Your task to perform on an android device: check android version Image 0: 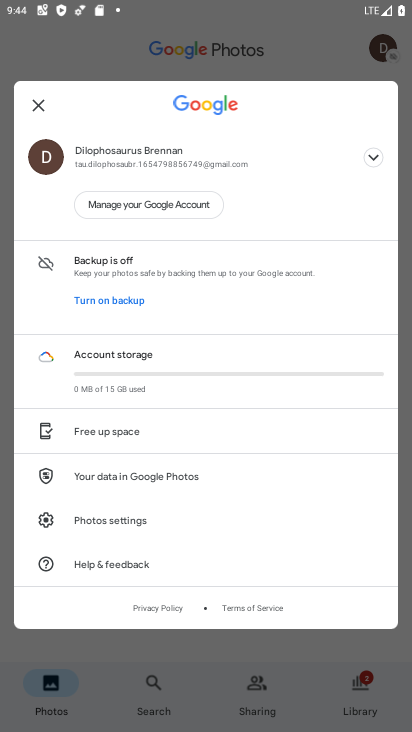
Step 0: click (271, 677)
Your task to perform on an android device: check android version Image 1: 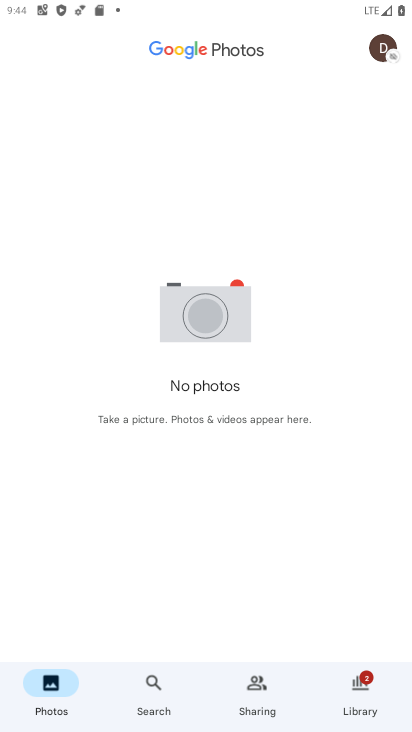
Step 1: press home button
Your task to perform on an android device: check android version Image 2: 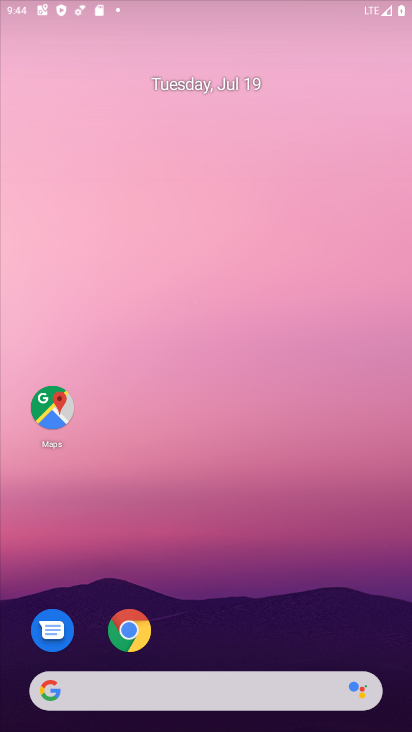
Step 2: drag from (198, 644) to (228, 119)
Your task to perform on an android device: check android version Image 3: 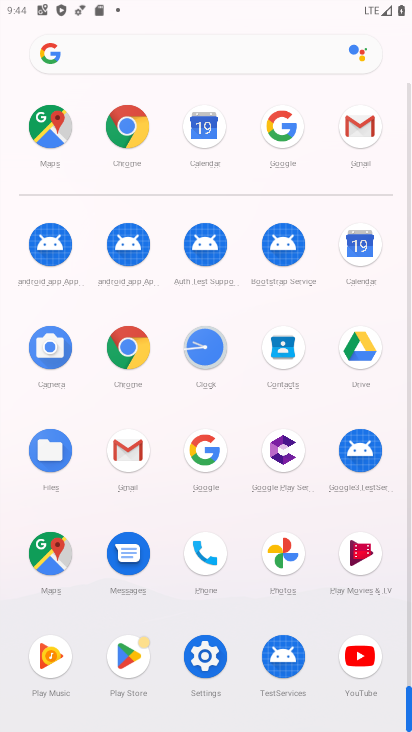
Step 3: click (208, 682)
Your task to perform on an android device: check android version Image 4: 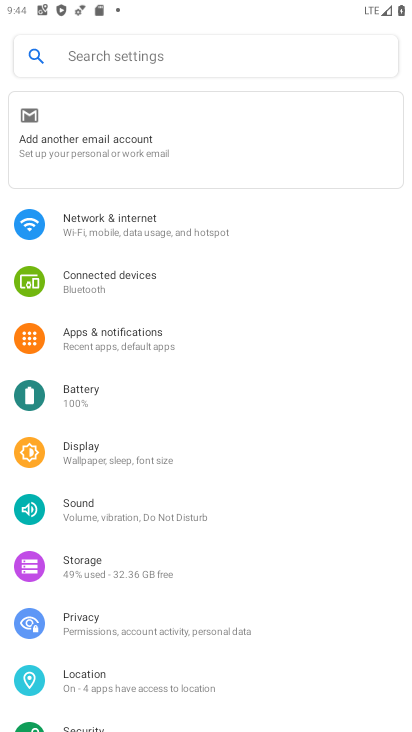
Step 4: drag from (193, 632) to (246, 254)
Your task to perform on an android device: check android version Image 5: 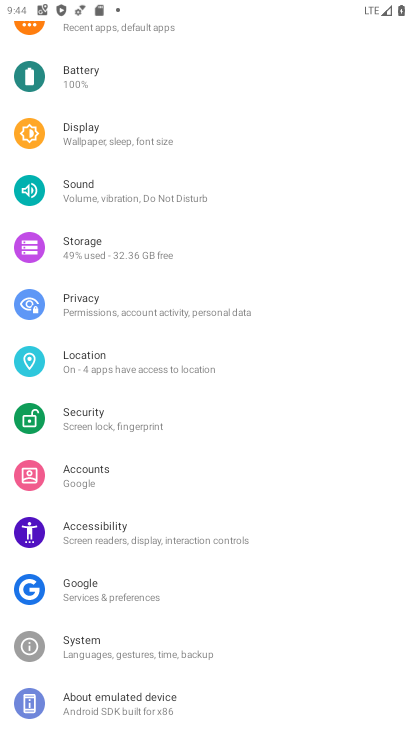
Step 5: drag from (191, 602) to (261, 364)
Your task to perform on an android device: check android version Image 6: 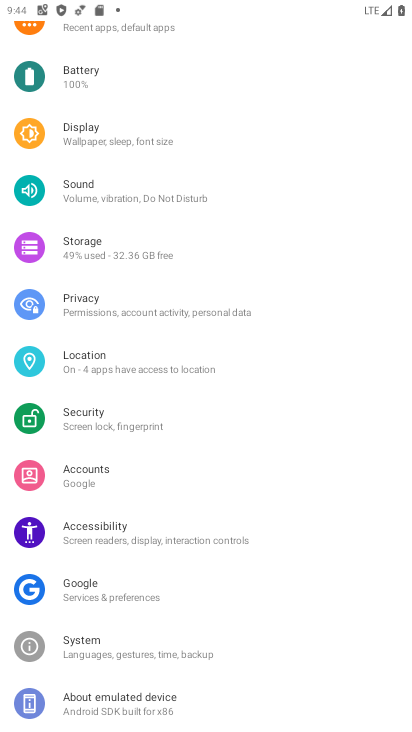
Step 6: click (196, 703)
Your task to perform on an android device: check android version Image 7: 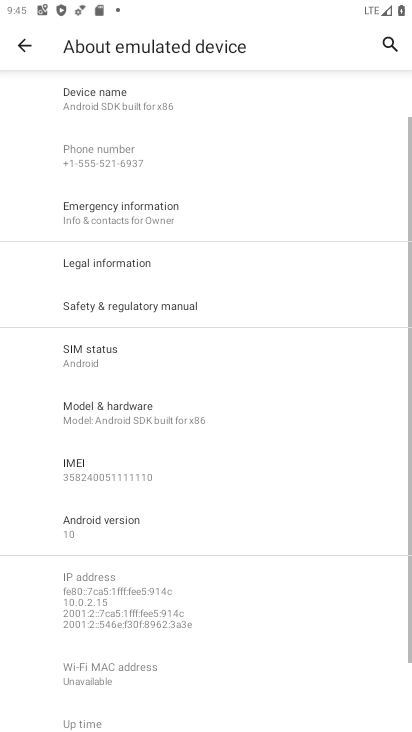
Step 7: click (97, 544)
Your task to perform on an android device: check android version Image 8: 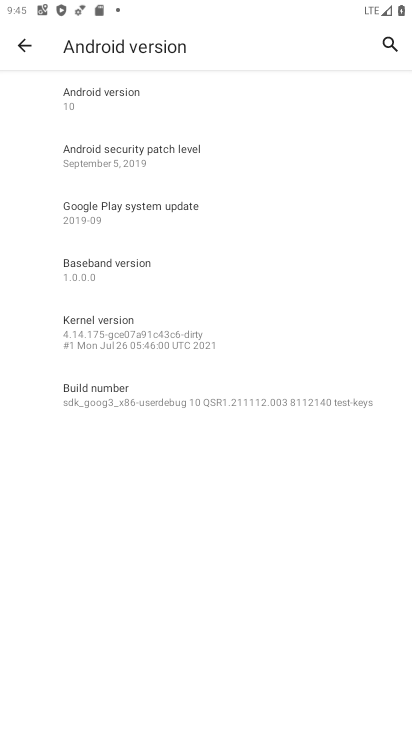
Step 8: task complete